Your task to perform on an android device: check google app version Image 0: 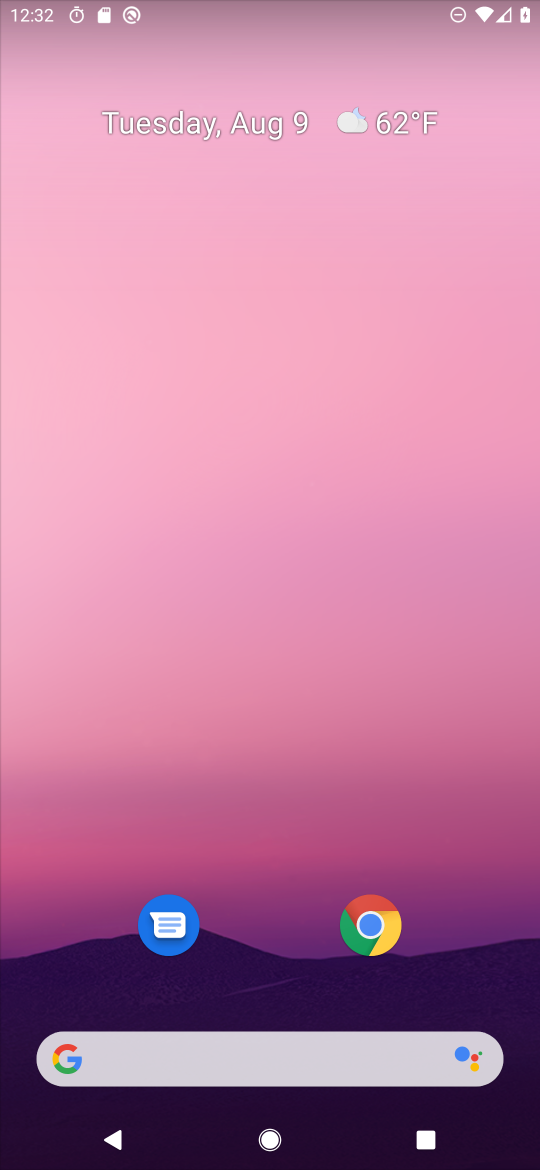
Step 0: drag from (268, 841) to (319, 193)
Your task to perform on an android device: check google app version Image 1: 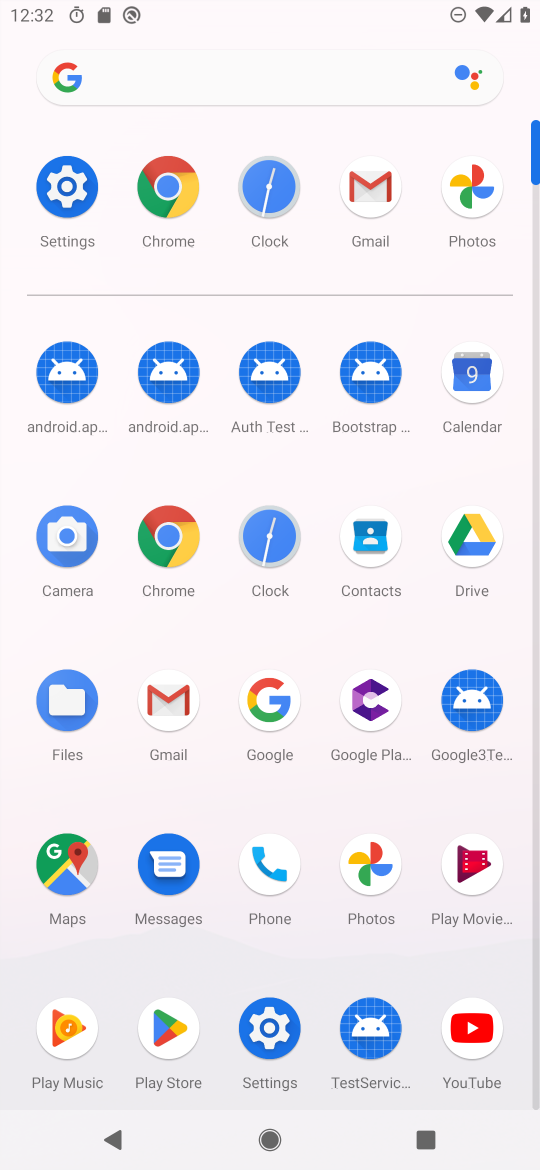
Step 1: click (269, 716)
Your task to perform on an android device: check google app version Image 2: 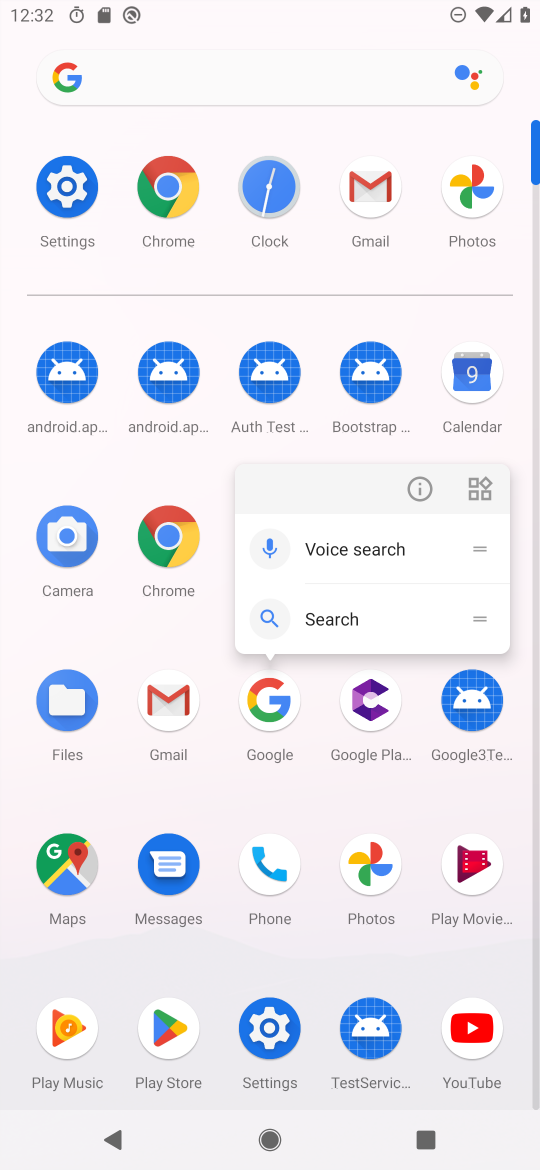
Step 2: click (431, 484)
Your task to perform on an android device: check google app version Image 3: 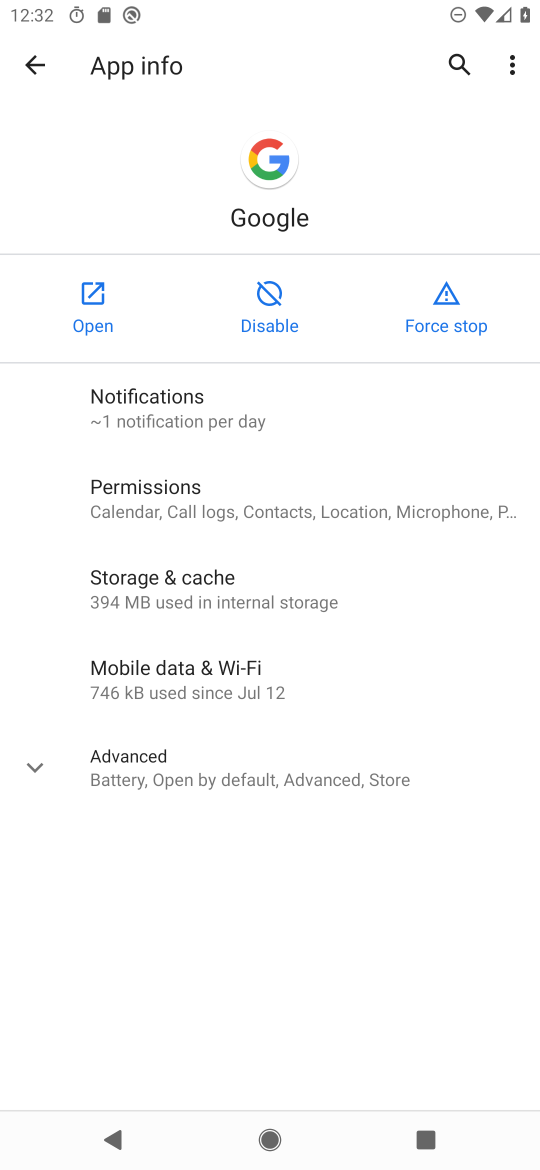
Step 3: click (224, 785)
Your task to perform on an android device: check google app version Image 4: 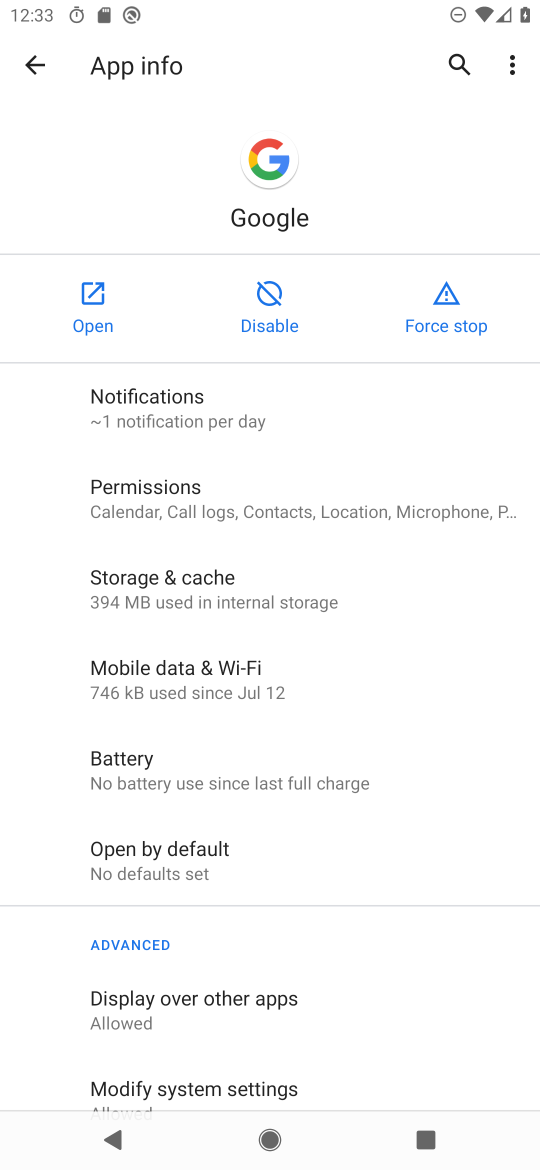
Step 4: task complete